Your task to perform on an android device: turn on javascript in the chrome app Image 0: 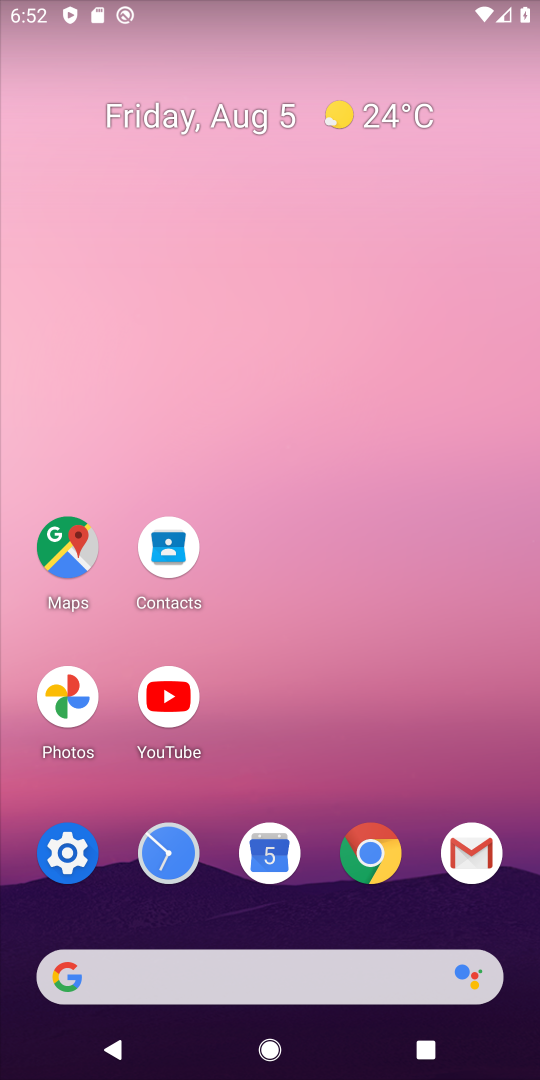
Step 0: click (369, 858)
Your task to perform on an android device: turn on javascript in the chrome app Image 1: 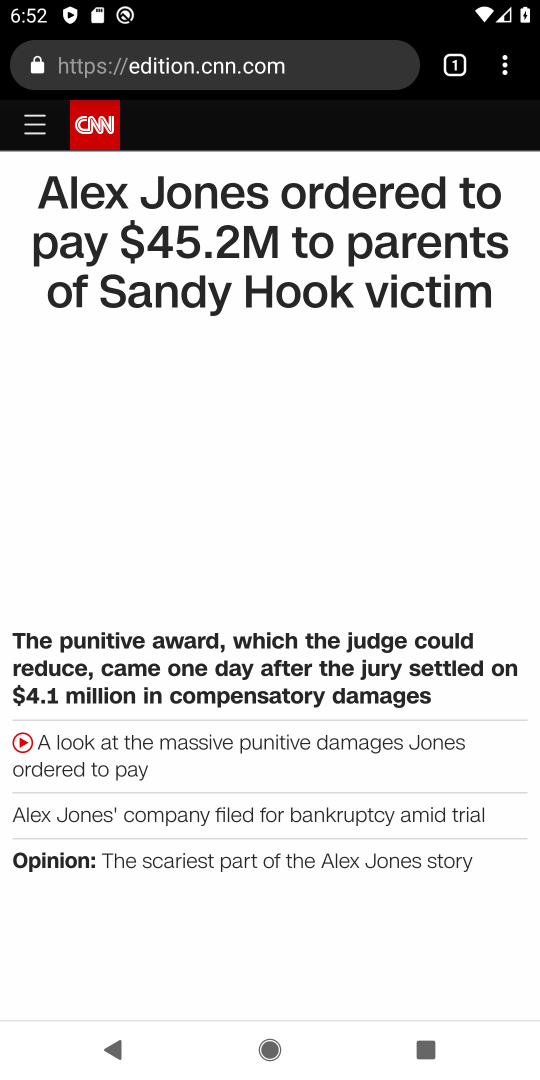
Step 1: click (502, 64)
Your task to perform on an android device: turn on javascript in the chrome app Image 2: 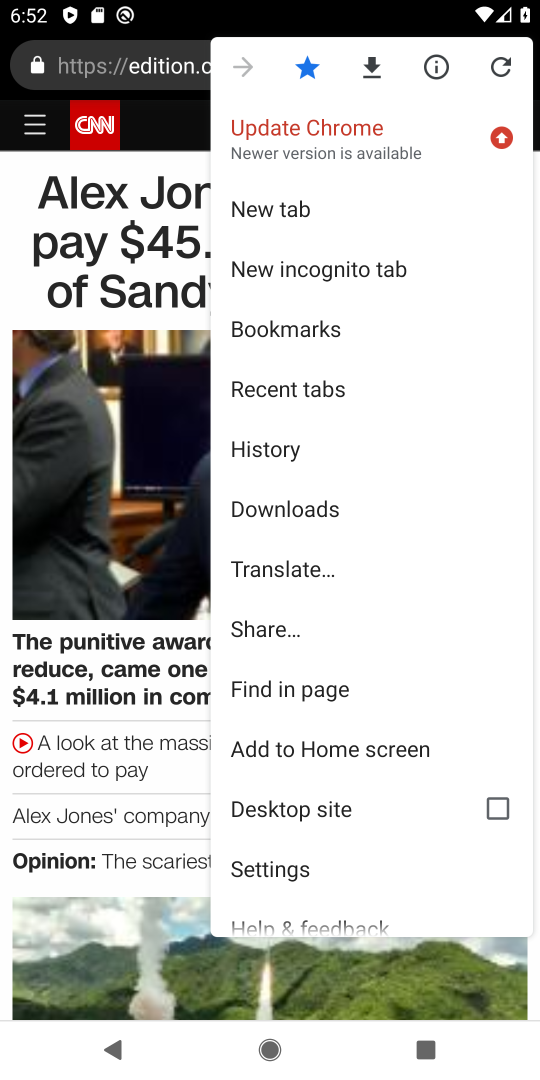
Step 2: click (284, 861)
Your task to perform on an android device: turn on javascript in the chrome app Image 3: 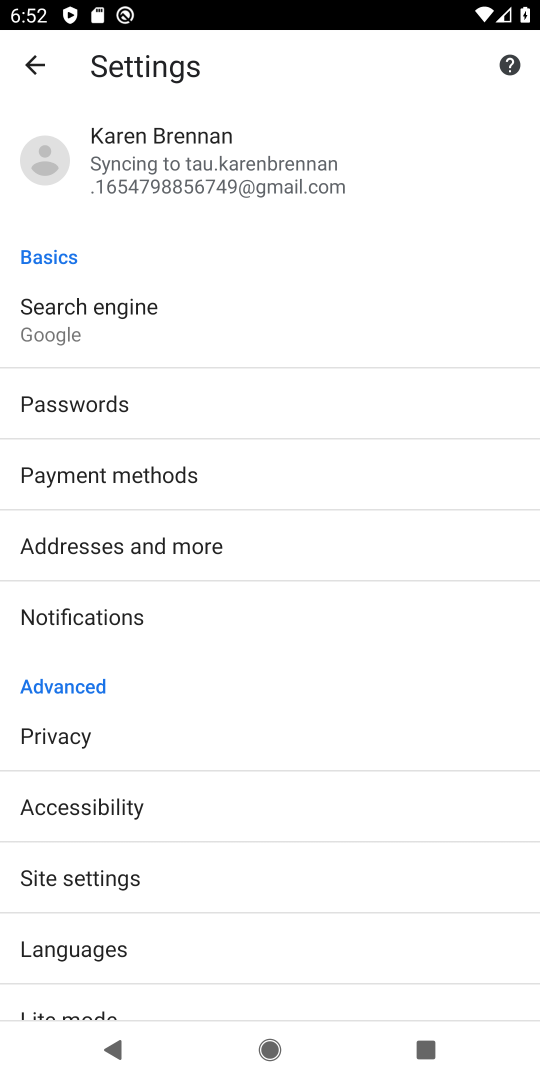
Step 3: click (87, 870)
Your task to perform on an android device: turn on javascript in the chrome app Image 4: 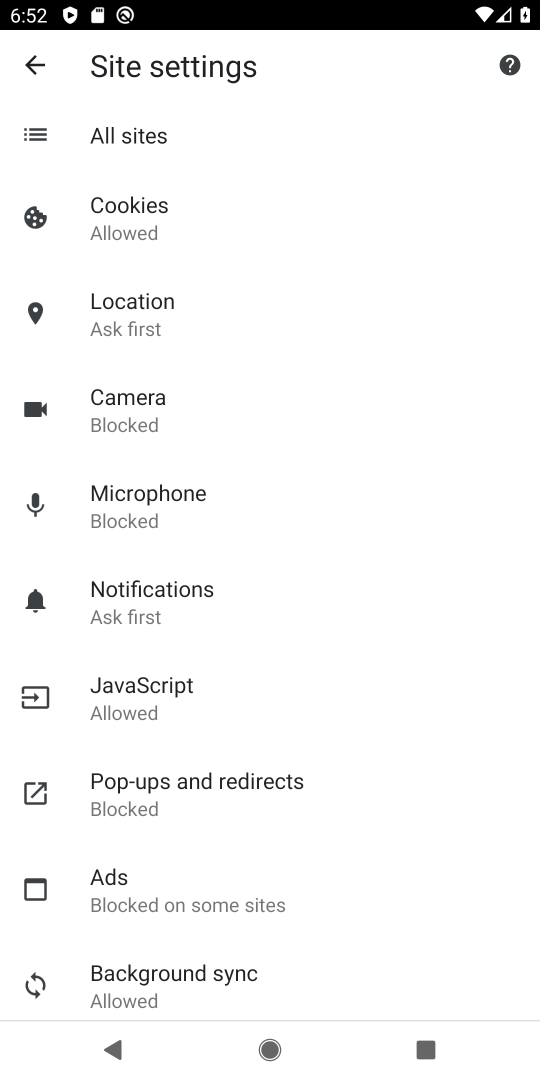
Step 4: click (126, 683)
Your task to perform on an android device: turn on javascript in the chrome app Image 5: 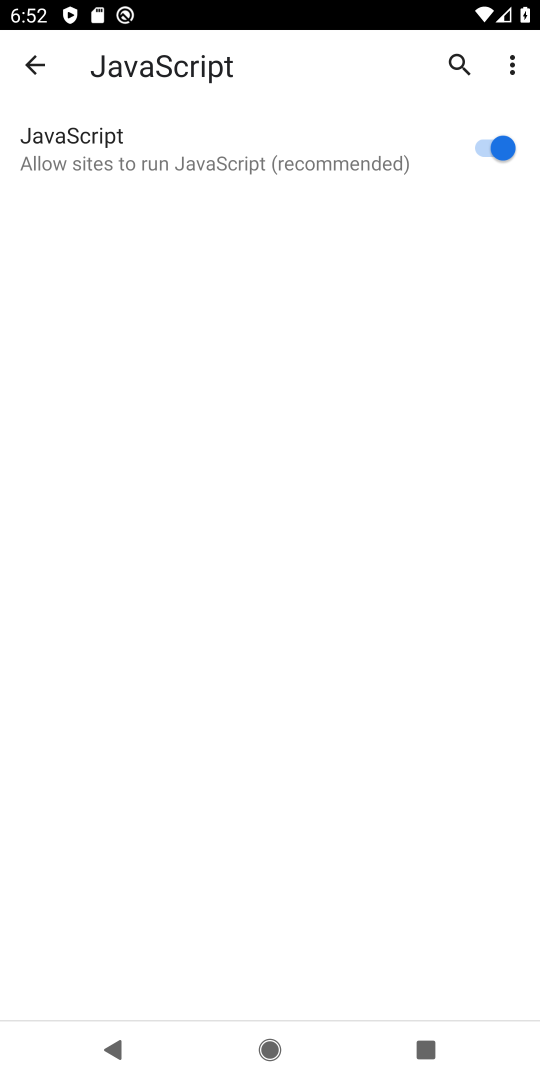
Step 5: task complete